Your task to perform on an android device: delete browsing data in the chrome app Image 0: 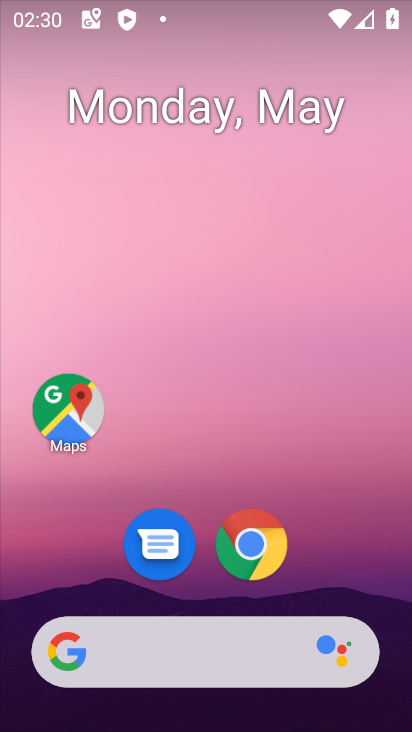
Step 0: drag from (376, 575) to (371, 196)
Your task to perform on an android device: delete browsing data in the chrome app Image 1: 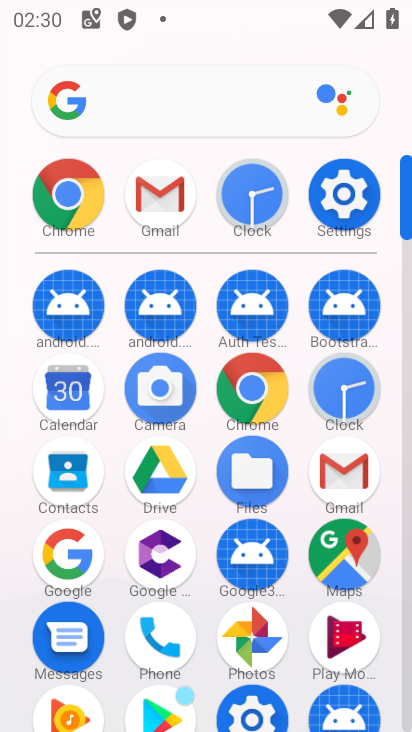
Step 1: click (271, 401)
Your task to perform on an android device: delete browsing data in the chrome app Image 2: 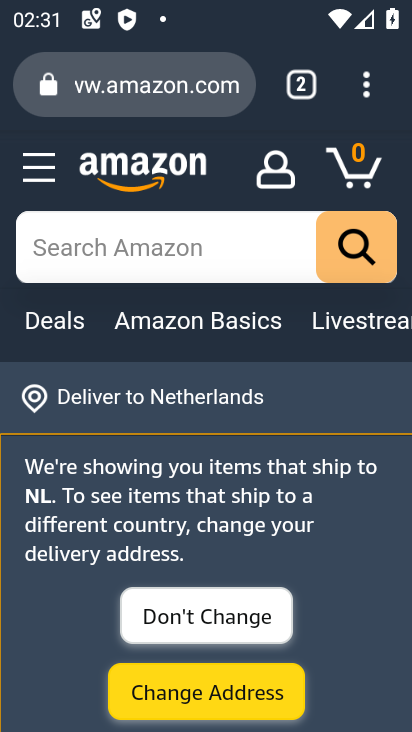
Step 2: click (366, 95)
Your task to perform on an android device: delete browsing data in the chrome app Image 3: 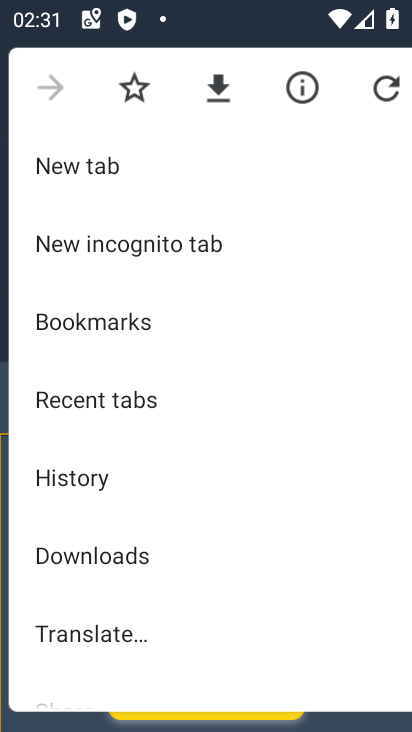
Step 3: drag from (286, 520) to (314, 247)
Your task to perform on an android device: delete browsing data in the chrome app Image 4: 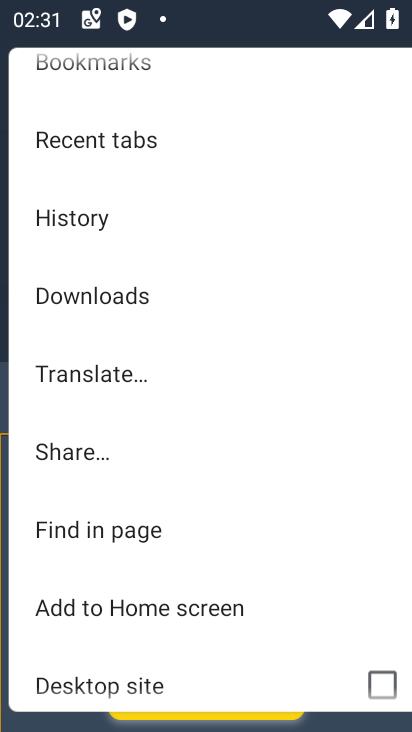
Step 4: drag from (312, 497) to (319, 335)
Your task to perform on an android device: delete browsing data in the chrome app Image 5: 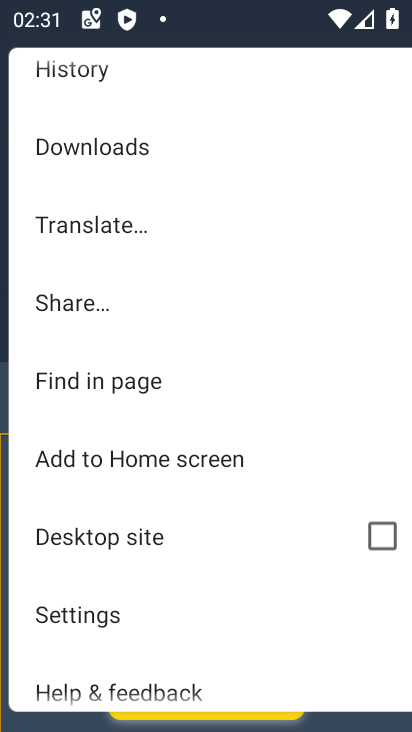
Step 5: drag from (286, 517) to (294, 391)
Your task to perform on an android device: delete browsing data in the chrome app Image 6: 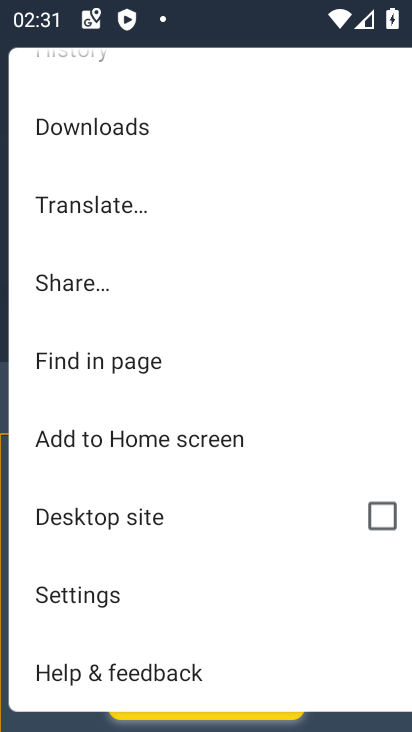
Step 6: click (83, 596)
Your task to perform on an android device: delete browsing data in the chrome app Image 7: 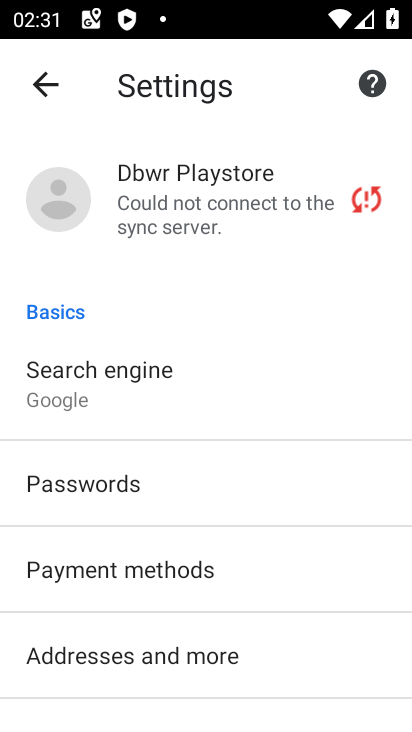
Step 7: drag from (308, 509) to (315, 352)
Your task to perform on an android device: delete browsing data in the chrome app Image 8: 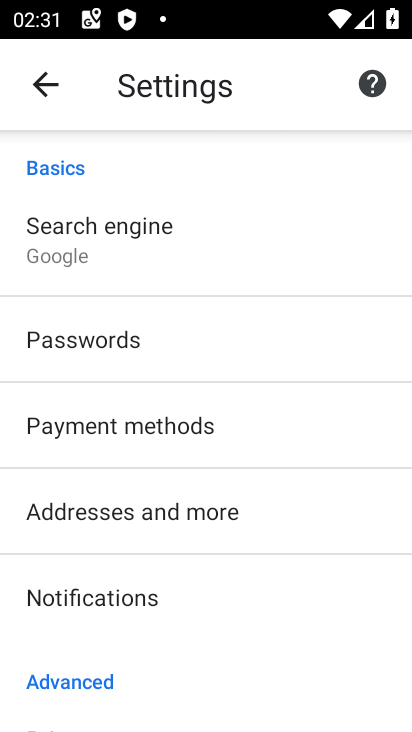
Step 8: drag from (317, 509) to (317, 351)
Your task to perform on an android device: delete browsing data in the chrome app Image 9: 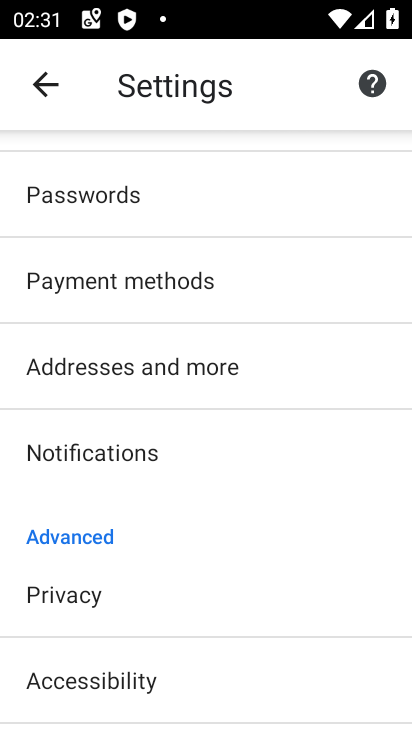
Step 9: drag from (285, 494) to (295, 366)
Your task to perform on an android device: delete browsing data in the chrome app Image 10: 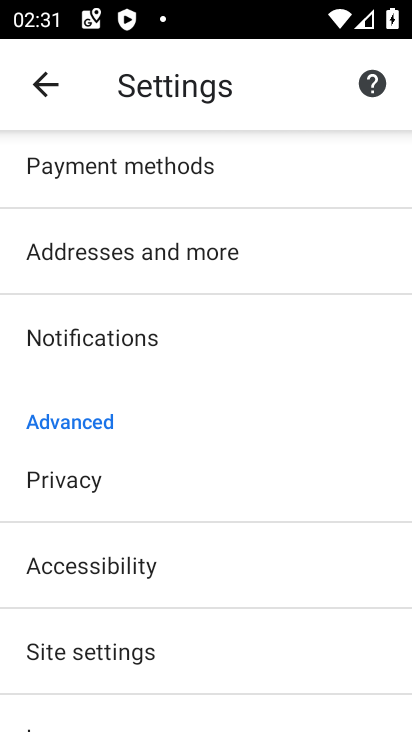
Step 10: drag from (297, 516) to (313, 294)
Your task to perform on an android device: delete browsing data in the chrome app Image 11: 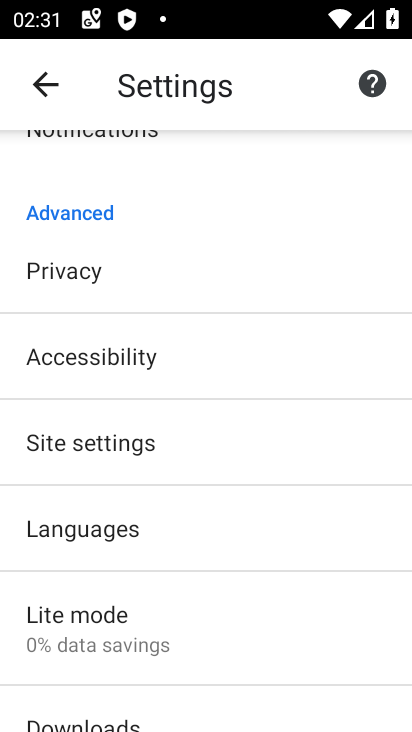
Step 11: drag from (297, 530) to (291, 396)
Your task to perform on an android device: delete browsing data in the chrome app Image 12: 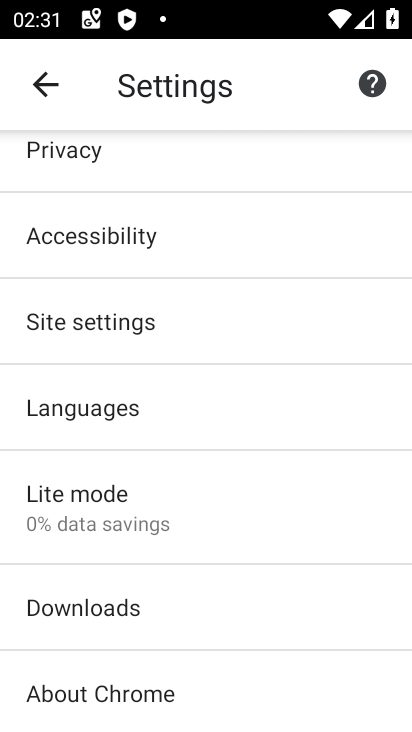
Step 12: drag from (276, 585) to (280, 360)
Your task to perform on an android device: delete browsing data in the chrome app Image 13: 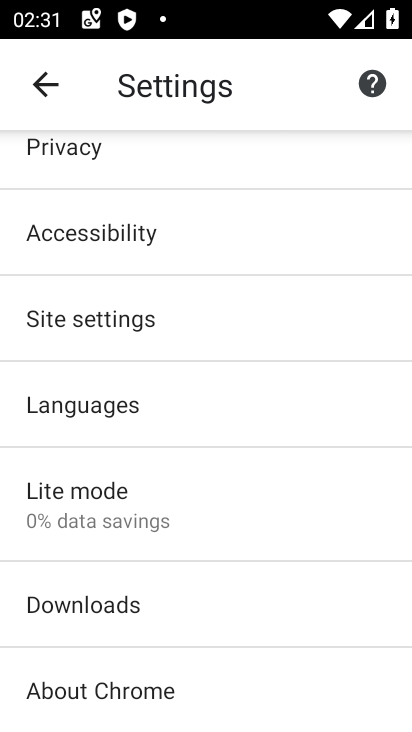
Step 13: drag from (264, 246) to (264, 500)
Your task to perform on an android device: delete browsing data in the chrome app Image 14: 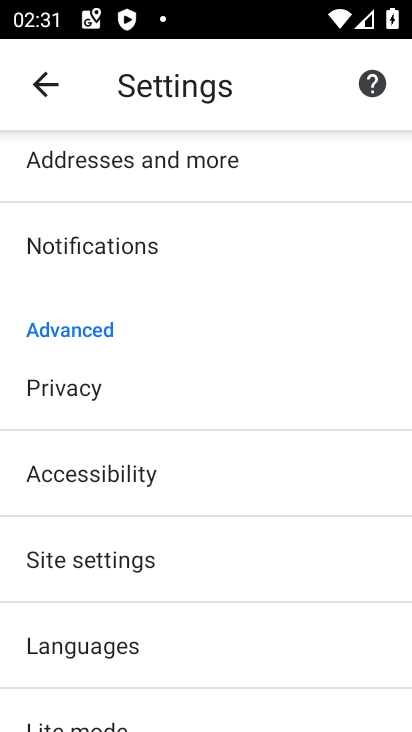
Step 14: click (88, 392)
Your task to perform on an android device: delete browsing data in the chrome app Image 15: 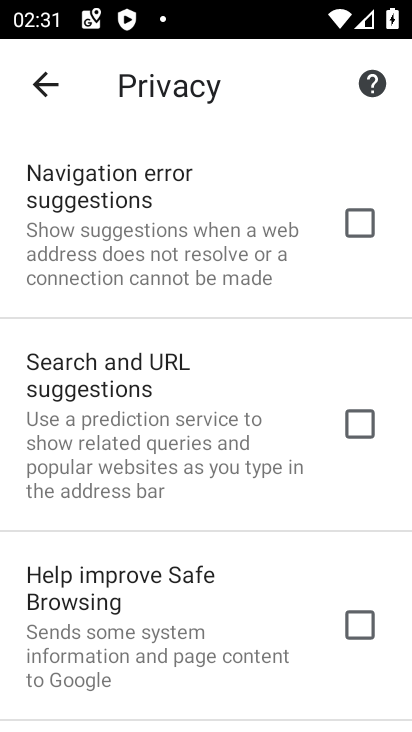
Step 15: drag from (250, 539) to (251, 435)
Your task to perform on an android device: delete browsing data in the chrome app Image 16: 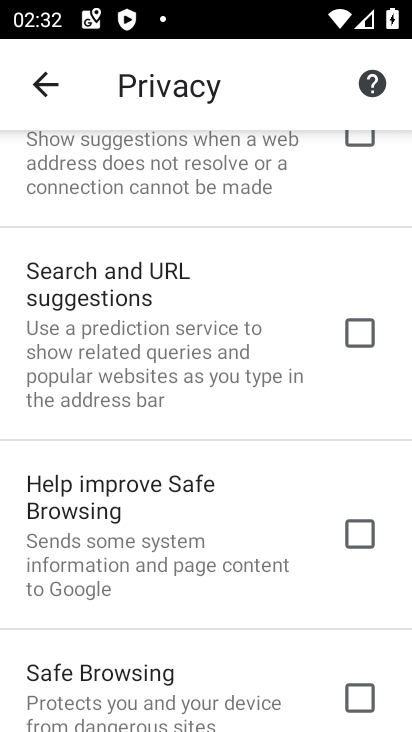
Step 16: drag from (271, 565) to (266, 392)
Your task to perform on an android device: delete browsing data in the chrome app Image 17: 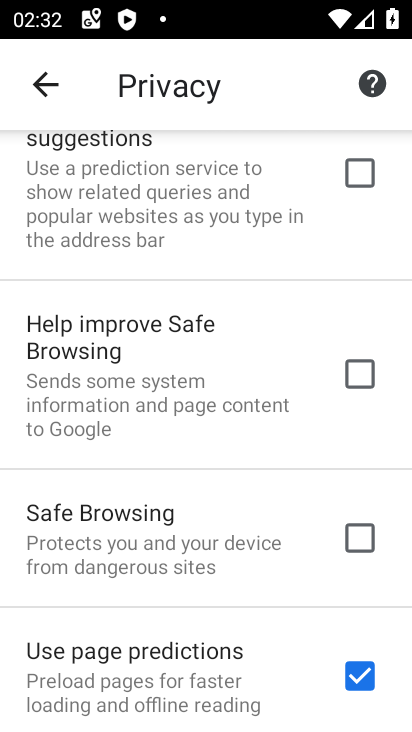
Step 17: drag from (270, 558) to (257, 415)
Your task to perform on an android device: delete browsing data in the chrome app Image 18: 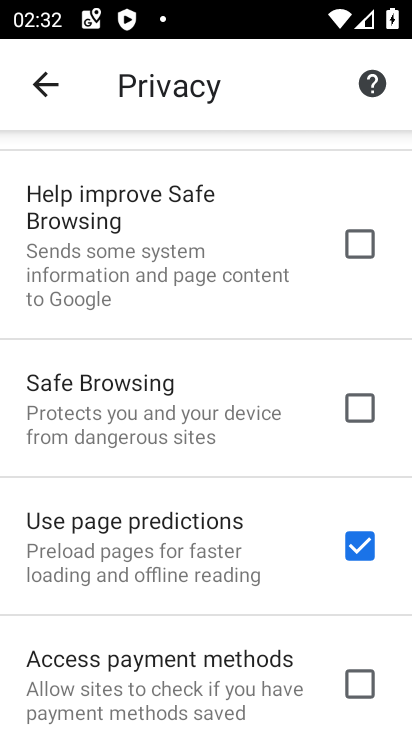
Step 18: drag from (251, 619) to (250, 439)
Your task to perform on an android device: delete browsing data in the chrome app Image 19: 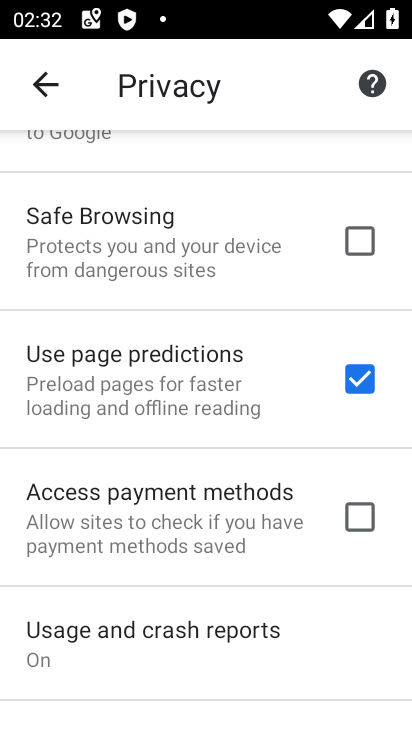
Step 19: drag from (264, 615) to (259, 488)
Your task to perform on an android device: delete browsing data in the chrome app Image 20: 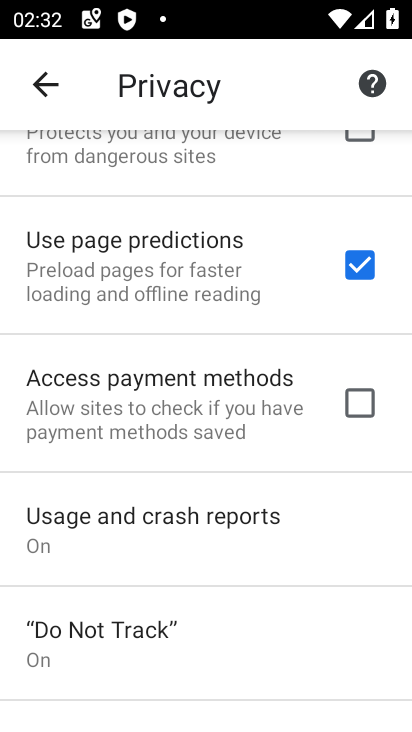
Step 20: drag from (274, 656) to (282, 515)
Your task to perform on an android device: delete browsing data in the chrome app Image 21: 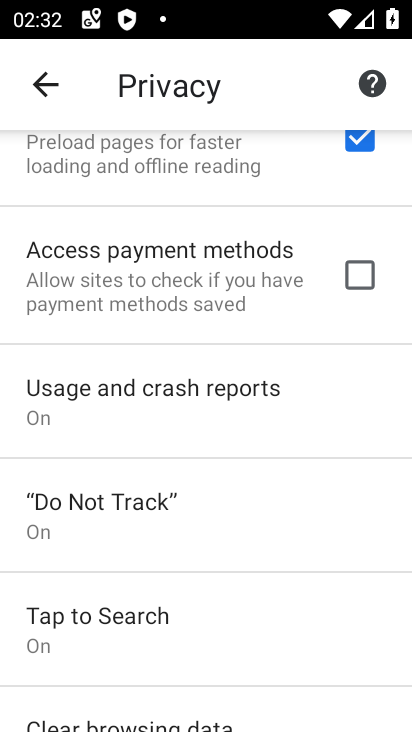
Step 21: drag from (286, 658) to (293, 498)
Your task to perform on an android device: delete browsing data in the chrome app Image 22: 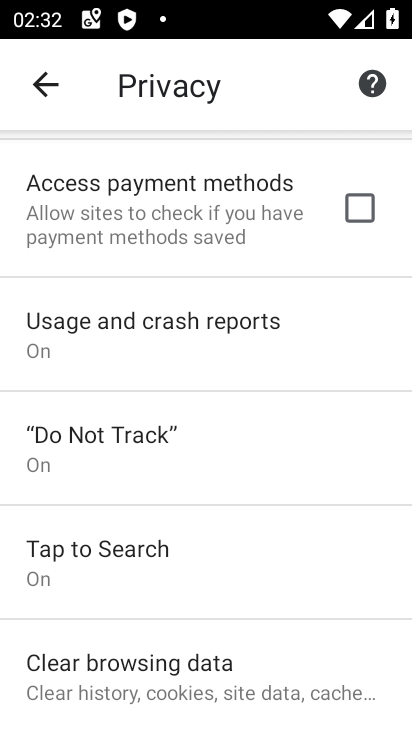
Step 22: drag from (288, 564) to (318, 378)
Your task to perform on an android device: delete browsing data in the chrome app Image 23: 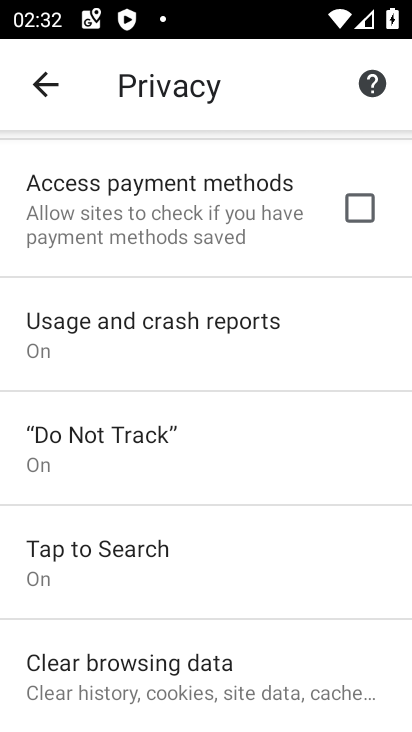
Step 23: click (238, 698)
Your task to perform on an android device: delete browsing data in the chrome app Image 24: 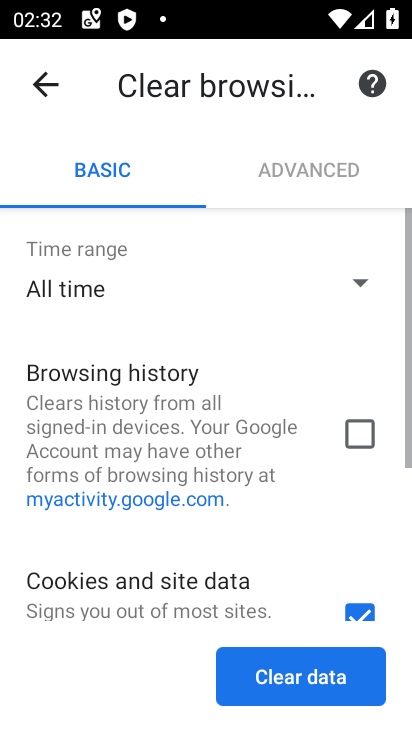
Step 24: click (367, 428)
Your task to perform on an android device: delete browsing data in the chrome app Image 25: 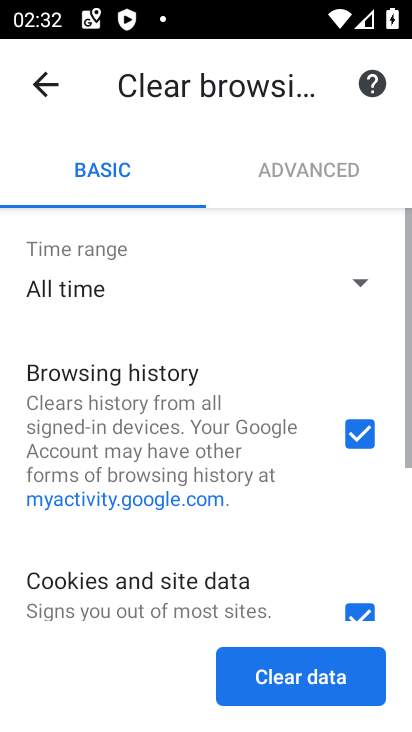
Step 25: click (299, 676)
Your task to perform on an android device: delete browsing data in the chrome app Image 26: 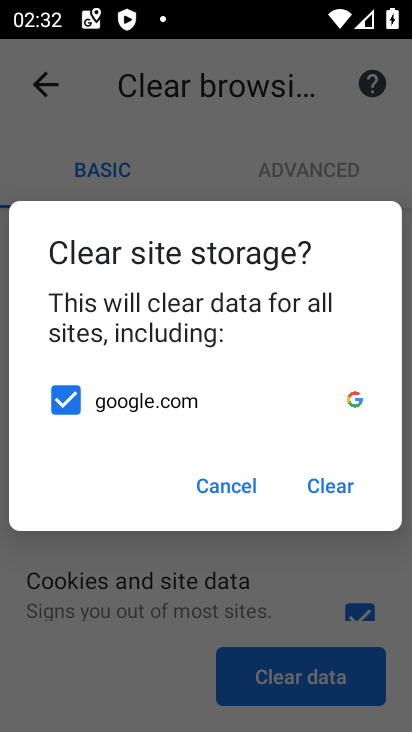
Step 26: click (324, 491)
Your task to perform on an android device: delete browsing data in the chrome app Image 27: 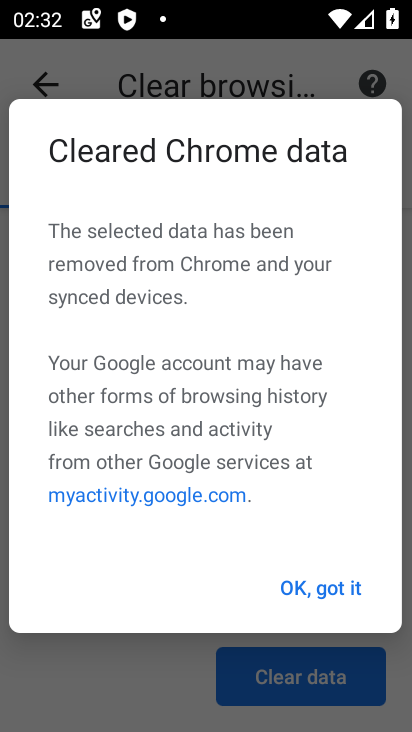
Step 27: click (326, 591)
Your task to perform on an android device: delete browsing data in the chrome app Image 28: 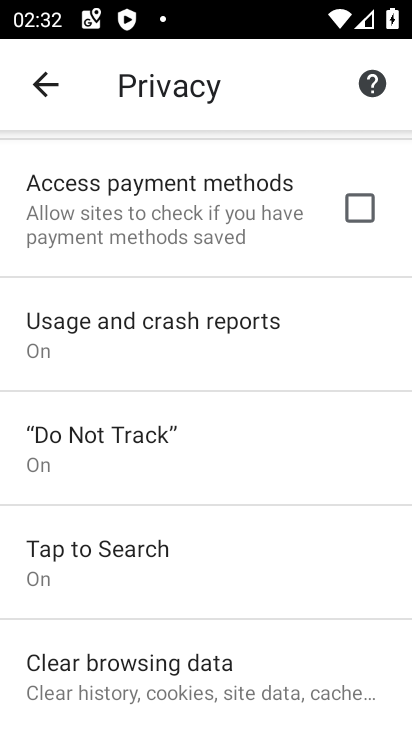
Step 28: task complete